Your task to perform on an android device: move a message to another label in the gmail app Image 0: 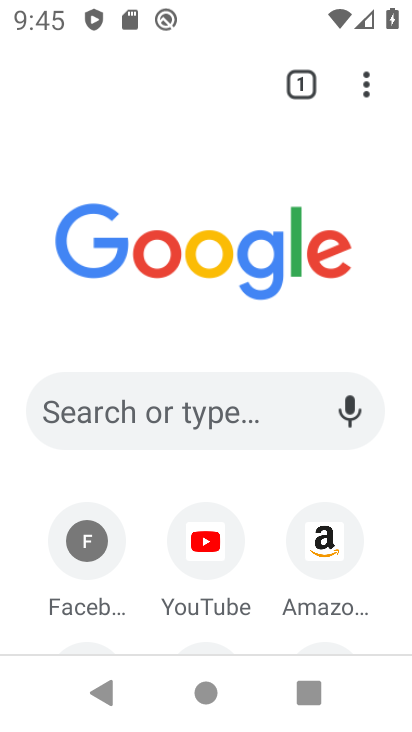
Step 0: drag from (151, 555) to (184, 198)
Your task to perform on an android device: move a message to another label in the gmail app Image 1: 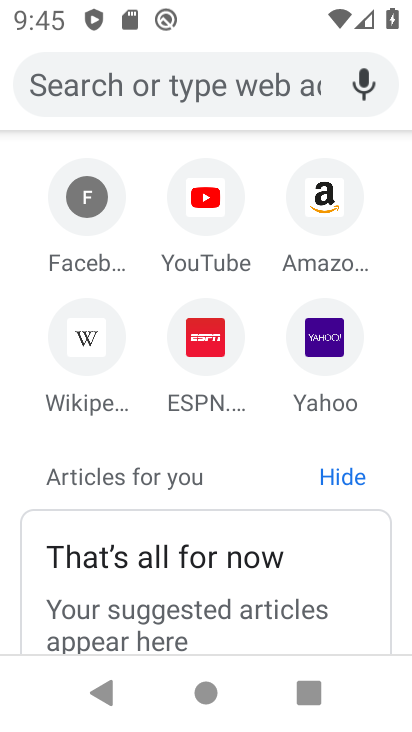
Step 1: press home button
Your task to perform on an android device: move a message to another label in the gmail app Image 2: 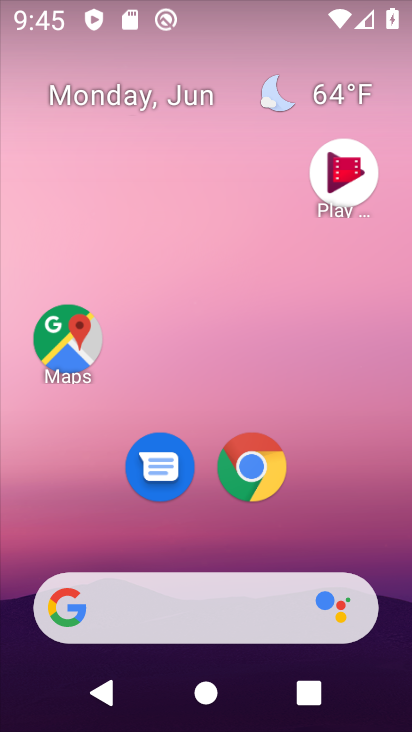
Step 2: drag from (94, 565) to (142, 162)
Your task to perform on an android device: move a message to another label in the gmail app Image 3: 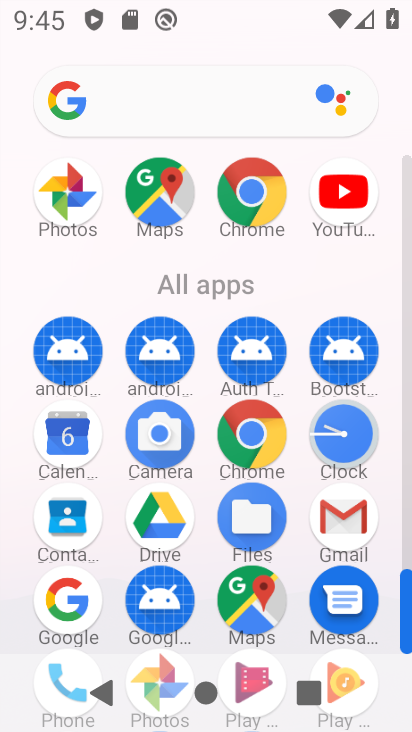
Step 3: click (328, 511)
Your task to perform on an android device: move a message to another label in the gmail app Image 4: 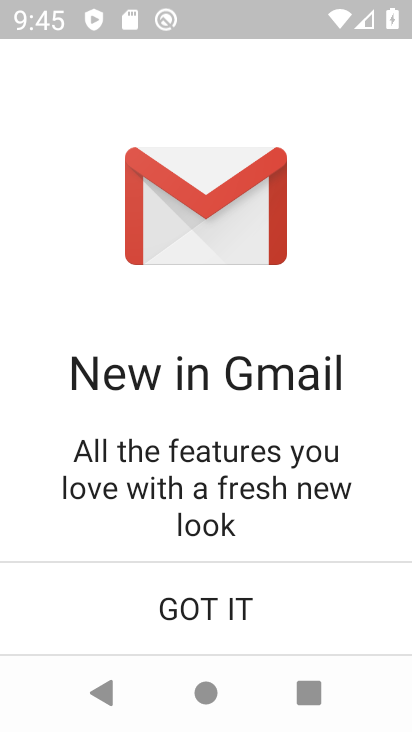
Step 4: click (254, 598)
Your task to perform on an android device: move a message to another label in the gmail app Image 5: 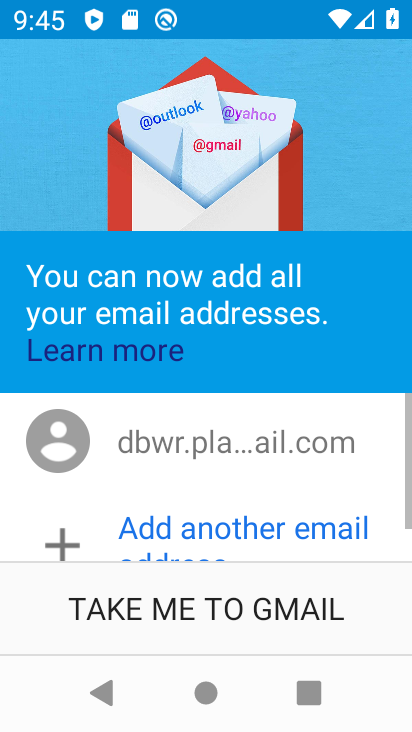
Step 5: click (254, 598)
Your task to perform on an android device: move a message to another label in the gmail app Image 6: 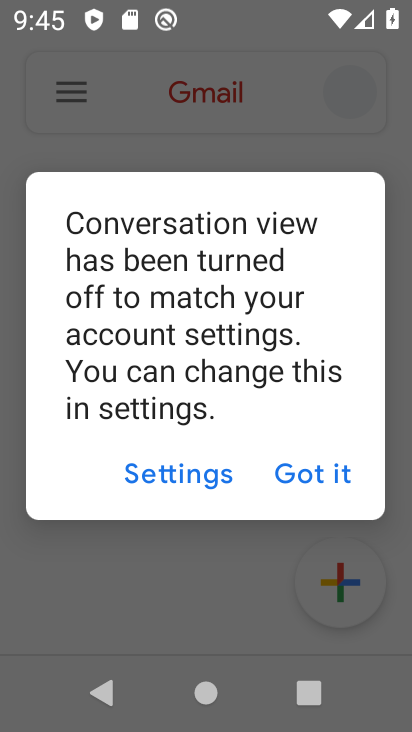
Step 6: click (287, 472)
Your task to perform on an android device: move a message to another label in the gmail app Image 7: 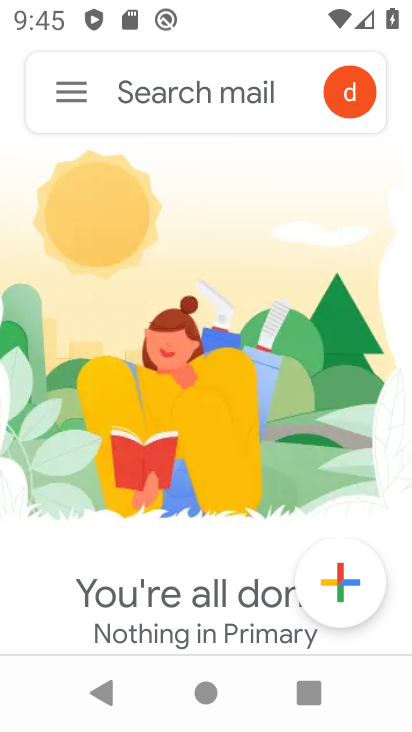
Step 7: click (80, 104)
Your task to perform on an android device: move a message to another label in the gmail app Image 8: 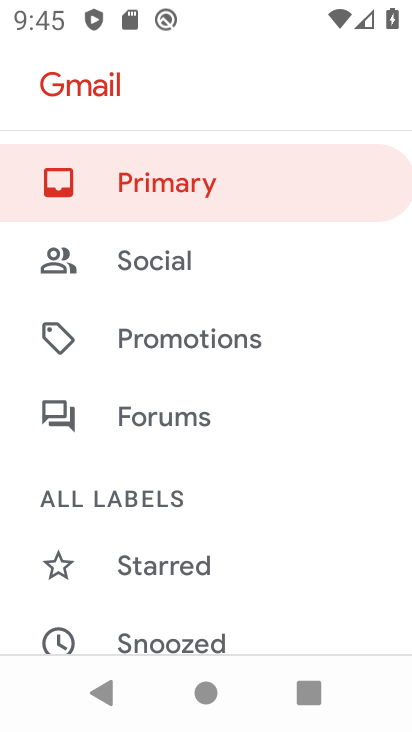
Step 8: drag from (95, 578) to (222, 167)
Your task to perform on an android device: move a message to another label in the gmail app Image 9: 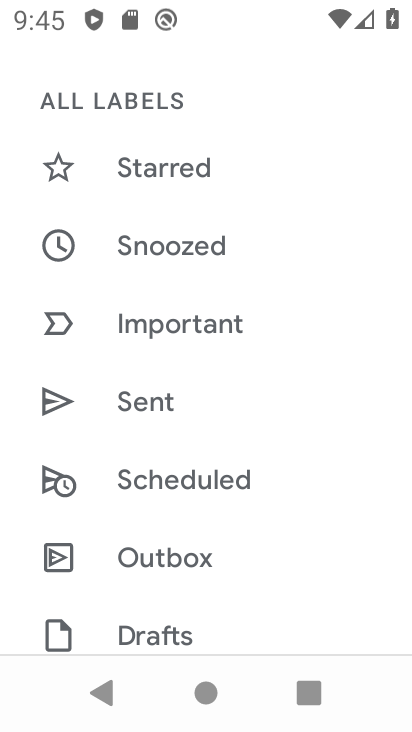
Step 9: drag from (184, 594) to (242, 293)
Your task to perform on an android device: move a message to another label in the gmail app Image 10: 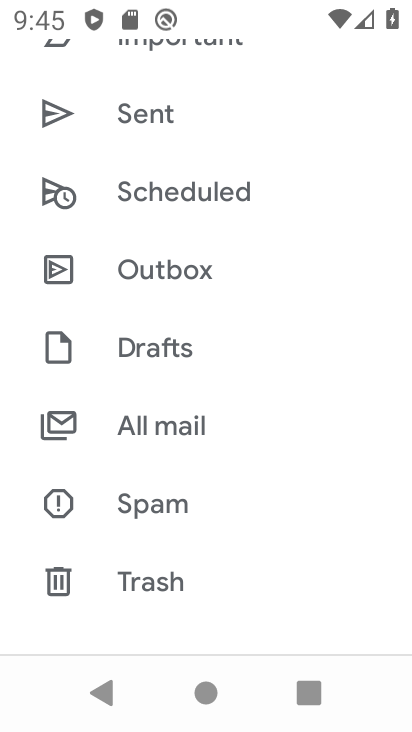
Step 10: click (194, 435)
Your task to perform on an android device: move a message to another label in the gmail app Image 11: 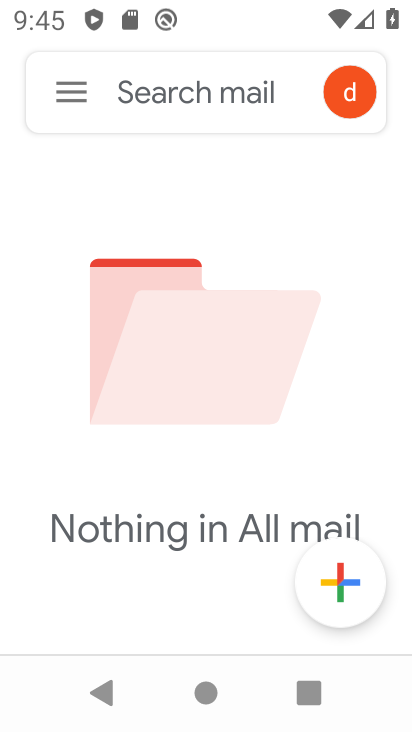
Step 11: task complete